Your task to perform on an android device: Open Chrome and go to the settings page Image 0: 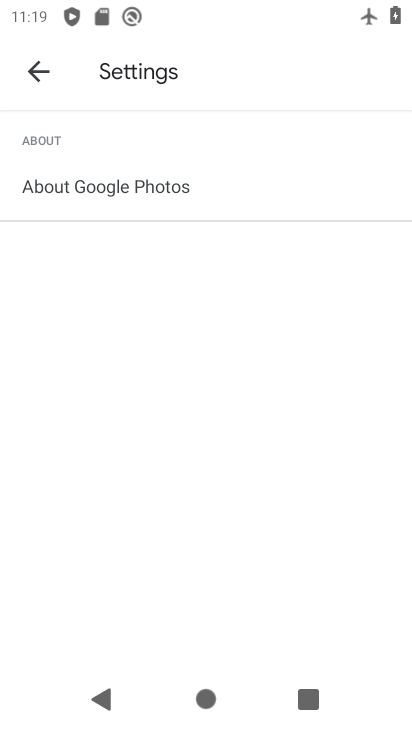
Step 0: drag from (336, 538) to (284, 112)
Your task to perform on an android device: Open Chrome and go to the settings page Image 1: 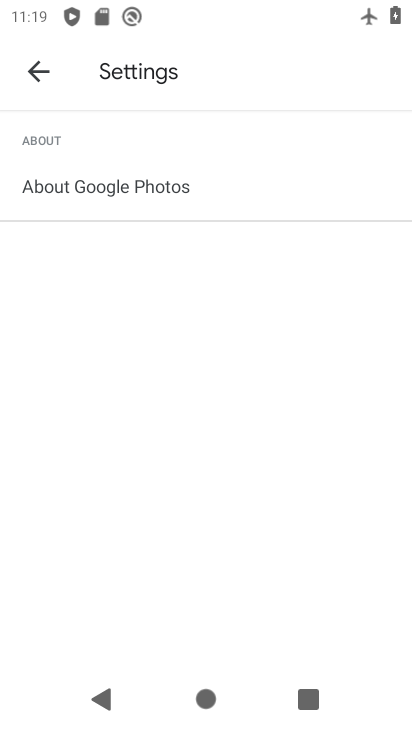
Step 1: press back button
Your task to perform on an android device: Open Chrome and go to the settings page Image 2: 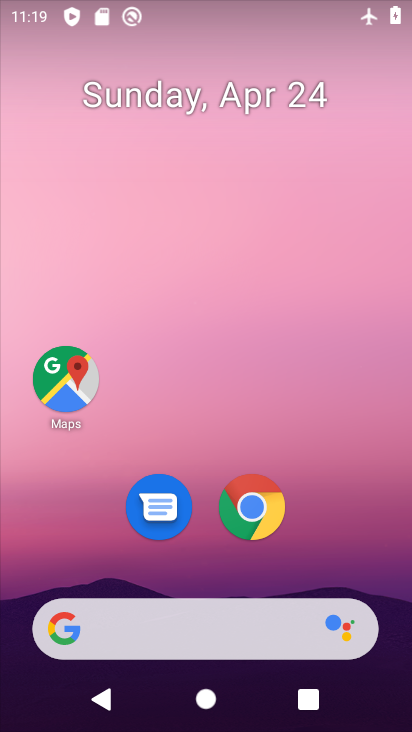
Step 2: click (250, 499)
Your task to perform on an android device: Open Chrome and go to the settings page Image 3: 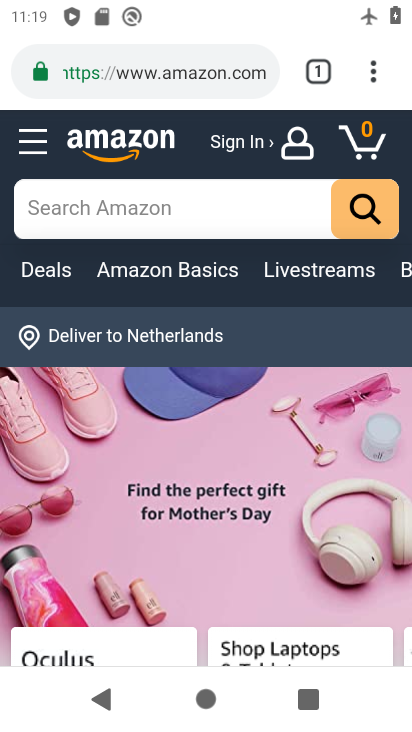
Step 3: task complete